Your task to perform on an android device: snooze an email in the gmail app Image 0: 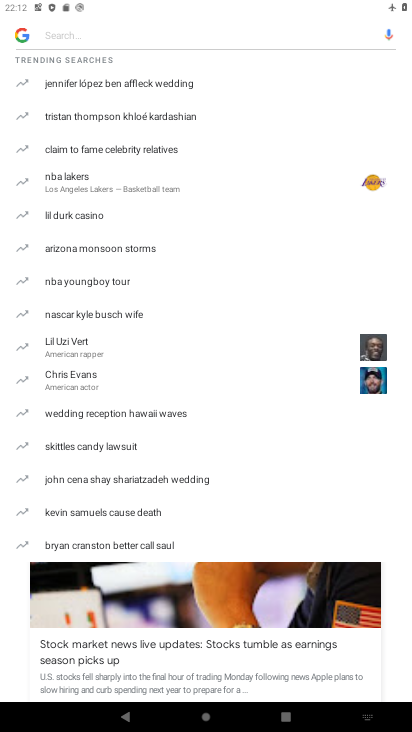
Step 0: press home button
Your task to perform on an android device: snooze an email in the gmail app Image 1: 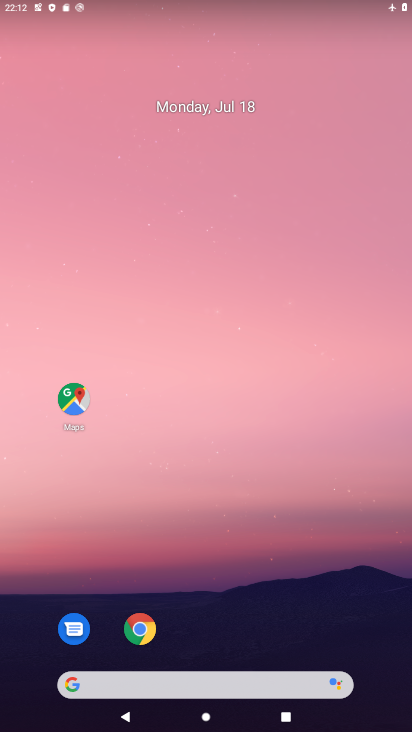
Step 1: drag from (278, 591) to (227, 207)
Your task to perform on an android device: snooze an email in the gmail app Image 2: 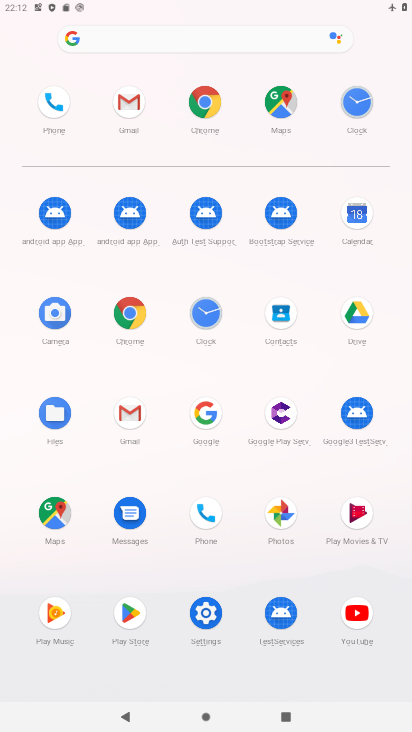
Step 2: click (121, 413)
Your task to perform on an android device: snooze an email in the gmail app Image 3: 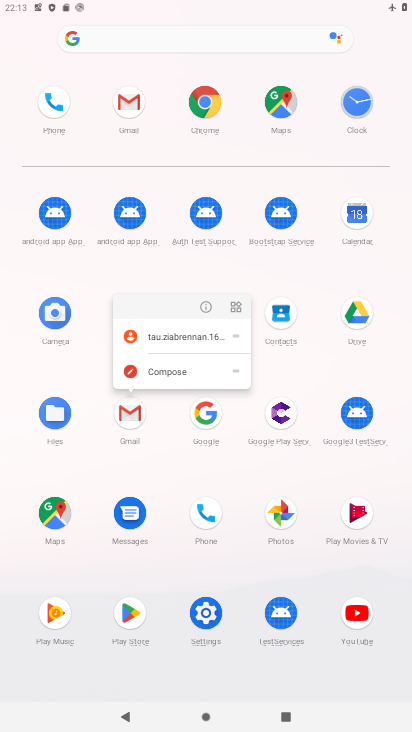
Step 3: click (127, 411)
Your task to perform on an android device: snooze an email in the gmail app Image 4: 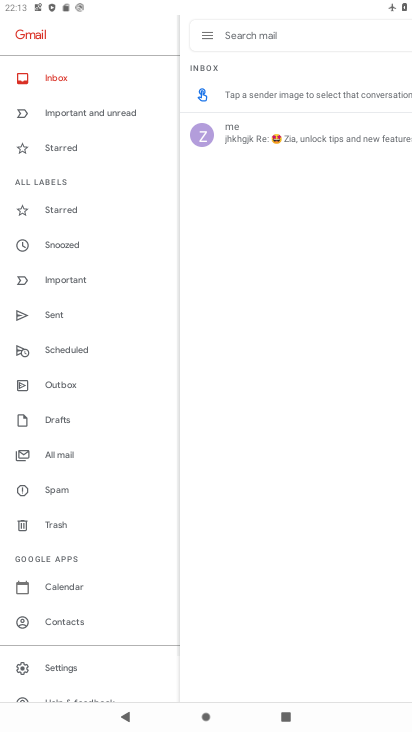
Step 4: click (329, 121)
Your task to perform on an android device: snooze an email in the gmail app Image 5: 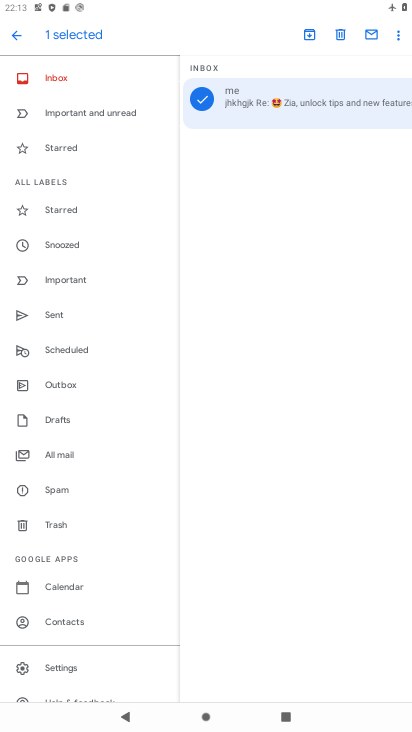
Step 5: click (397, 22)
Your task to perform on an android device: snooze an email in the gmail app Image 6: 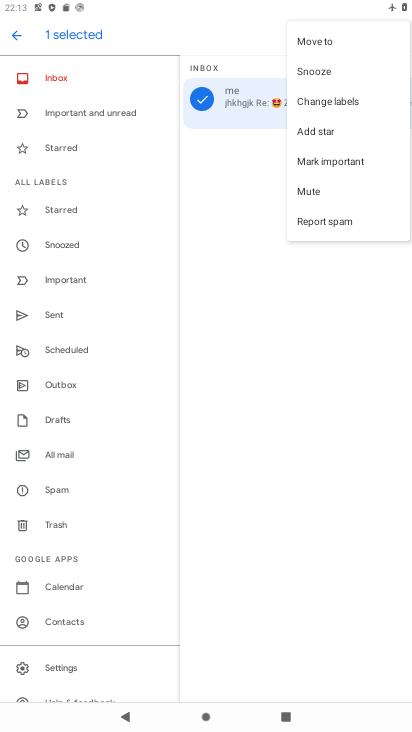
Step 6: click (330, 71)
Your task to perform on an android device: snooze an email in the gmail app Image 7: 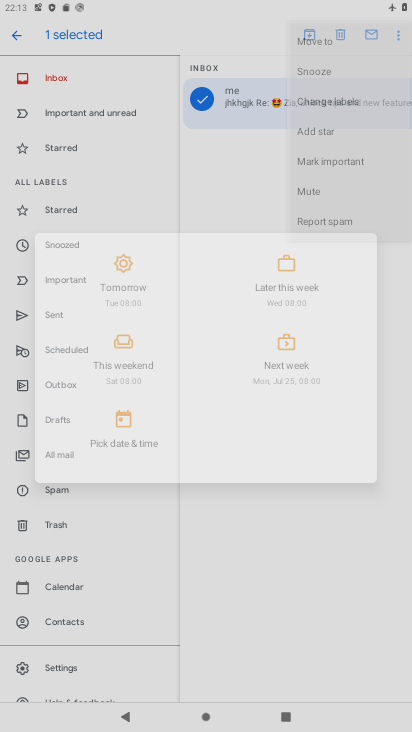
Step 7: click (319, 68)
Your task to perform on an android device: snooze an email in the gmail app Image 8: 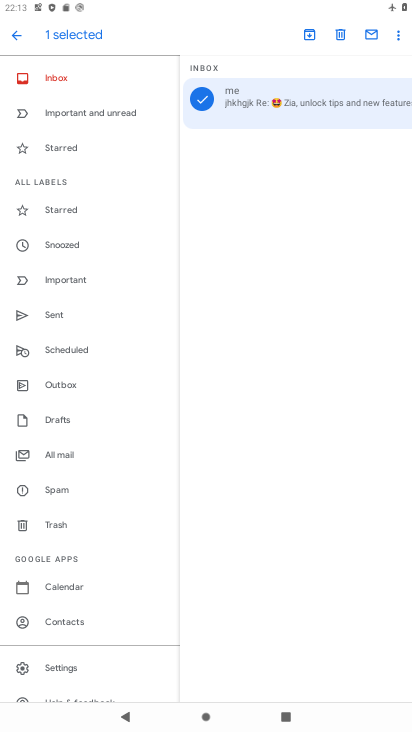
Step 8: drag from (333, 96) to (319, 216)
Your task to perform on an android device: snooze an email in the gmail app Image 9: 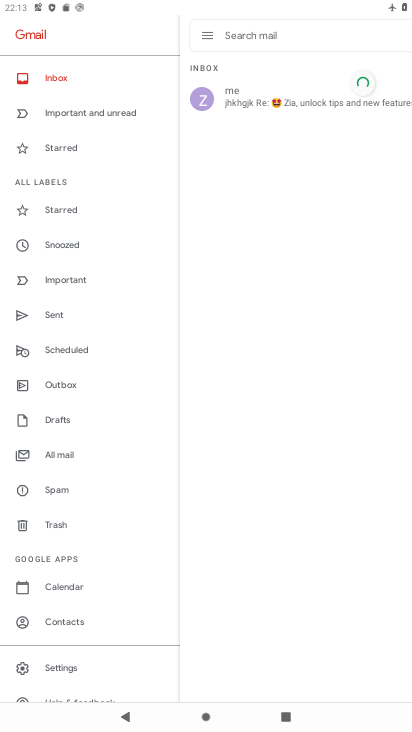
Step 9: drag from (320, 108) to (367, 50)
Your task to perform on an android device: snooze an email in the gmail app Image 10: 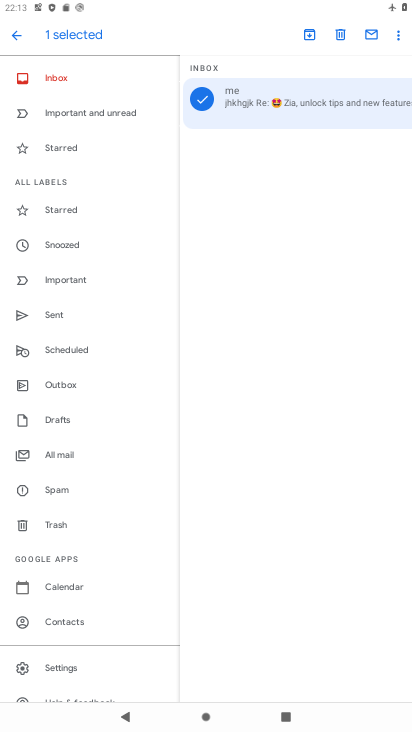
Step 10: click (396, 29)
Your task to perform on an android device: snooze an email in the gmail app Image 11: 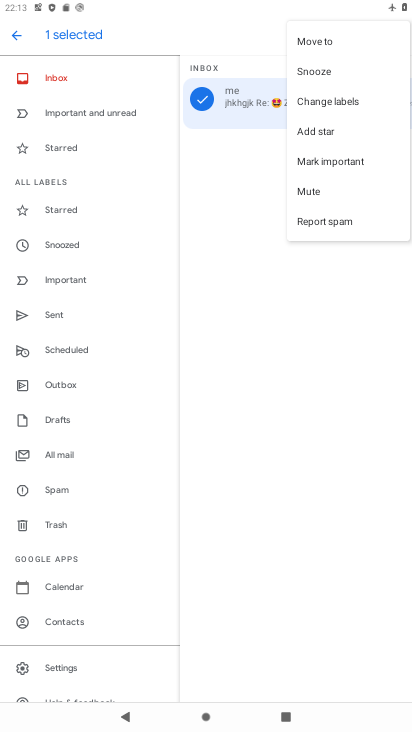
Step 11: click (328, 80)
Your task to perform on an android device: snooze an email in the gmail app Image 12: 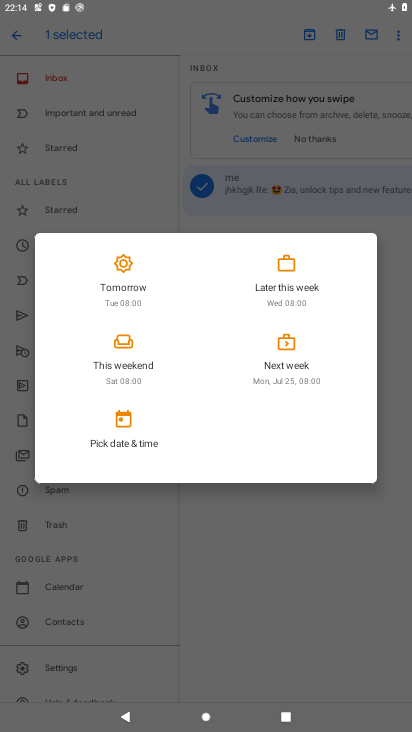
Step 12: click (147, 289)
Your task to perform on an android device: snooze an email in the gmail app Image 13: 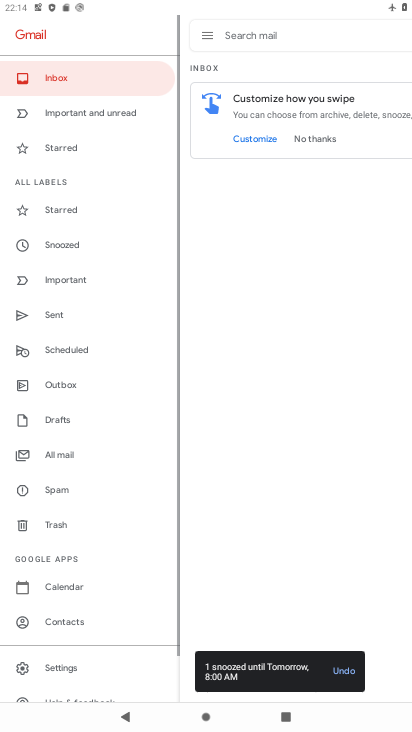
Step 13: task complete